Your task to perform on an android device: open the mobile data screen to see how much data has been used Image 0: 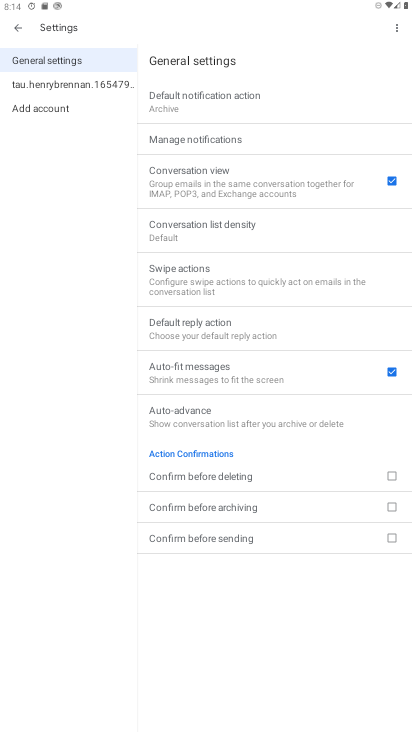
Step 0: press home button
Your task to perform on an android device: open the mobile data screen to see how much data has been used Image 1: 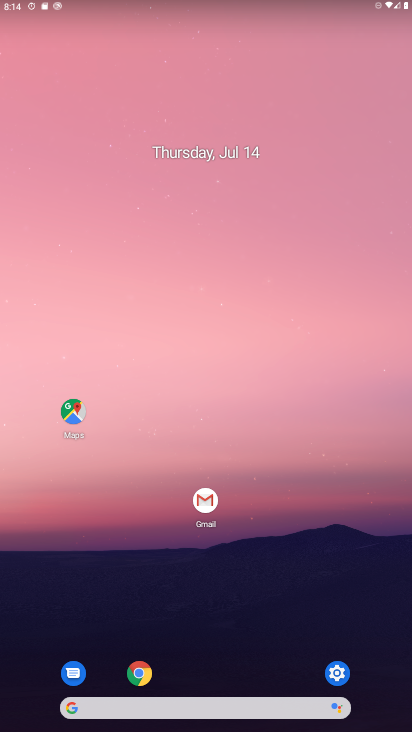
Step 1: click (337, 675)
Your task to perform on an android device: open the mobile data screen to see how much data has been used Image 2: 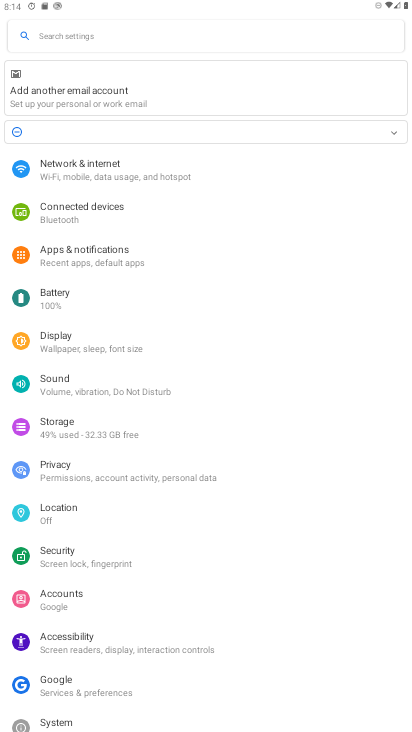
Step 2: click (123, 41)
Your task to perform on an android device: open the mobile data screen to see how much data has been used Image 3: 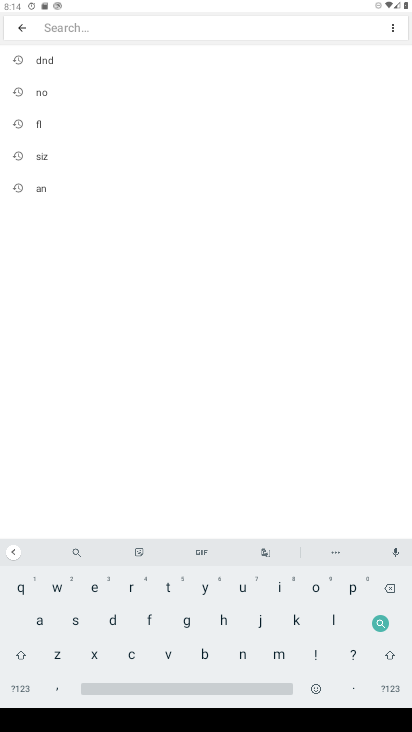
Step 3: click (110, 619)
Your task to perform on an android device: open the mobile data screen to see how much data has been used Image 4: 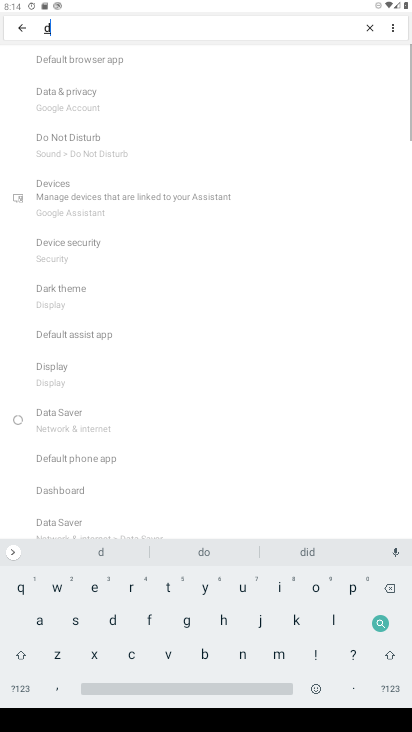
Step 4: click (38, 617)
Your task to perform on an android device: open the mobile data screen to see how much data has been used Image 5: 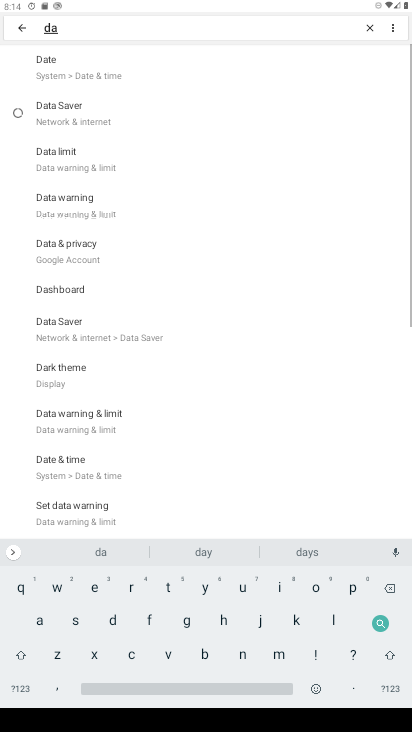
Step 5: click (168, 585)
Your task to perform on an android device: open the mobile data screen to see how much data has been used Image 6: 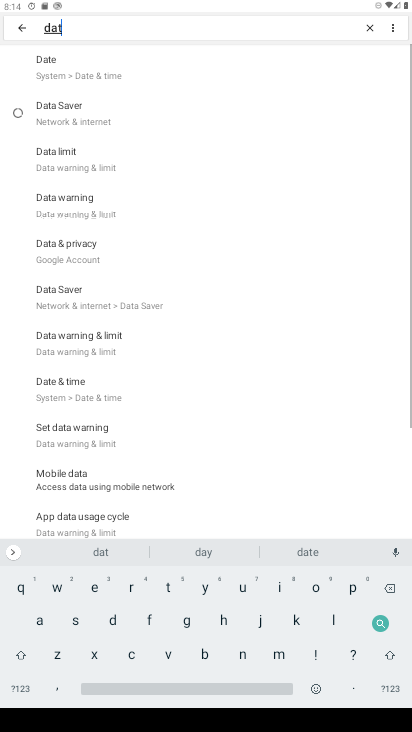
Step 6: click (35, 613)
Your task to perform on an android device: open the mobile data screen to see how much data has been used Image 7: 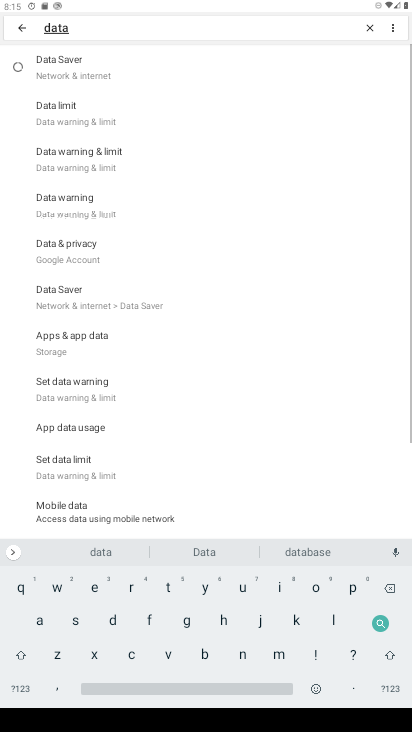
Step 7: click (194, 690)
Your task to perform on an android device: open the mobile data screen to see how much data has been used Image 8: 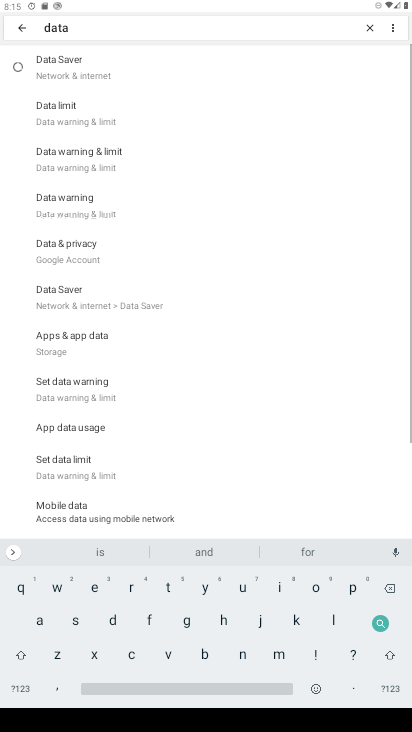
Step 8: click (240, 590)
Your task to perform on an android device: open the mobile data screen to see how much data has been used Image 9: 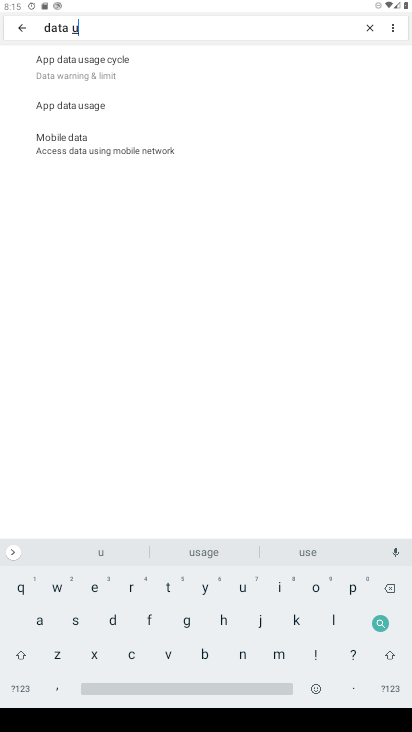
Step 9: click (69, 109)
Your task to perform on an android device: open the mobile data screen to see how much data has been used Image 10: 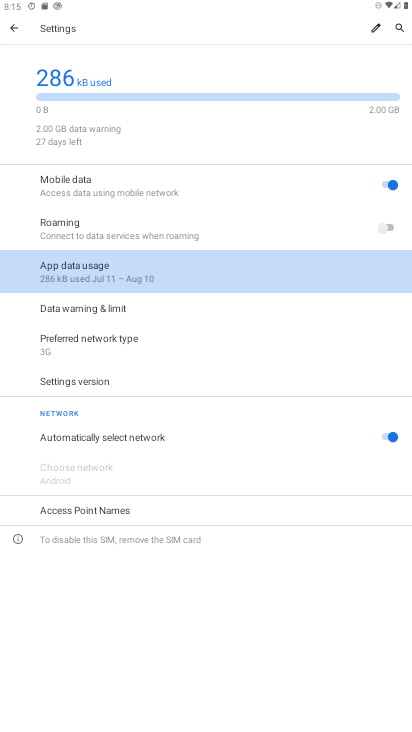
Step 10: click (143, 283)
Your task to perform on an android device: open the mobile data screen to see how much data has been used Image 11: 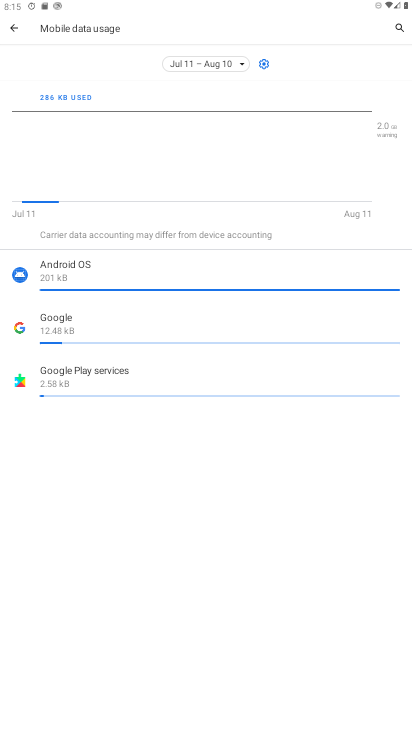
Step 11: task complete